Your task to perform on an android device: Open the Play Movies app and select the watchlist tab. Image 0: 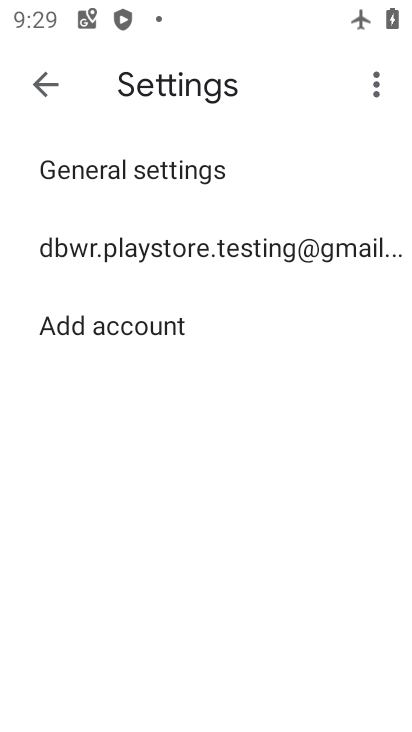
Step 0: press home button
Your task to perform on an android device: Open the Play Movies app and select the watchlist tab. Image 1: 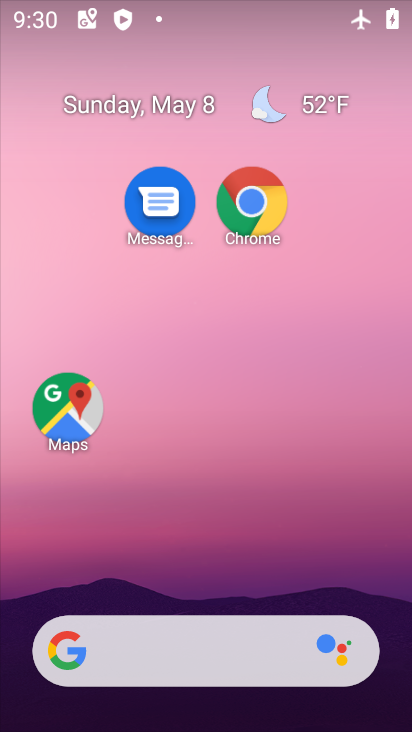
Step 1: drag from (205, 603) to (137, 7)
Your task to perform on an android device: Open the Play Movies app and select the watchlist tab. Image 2: 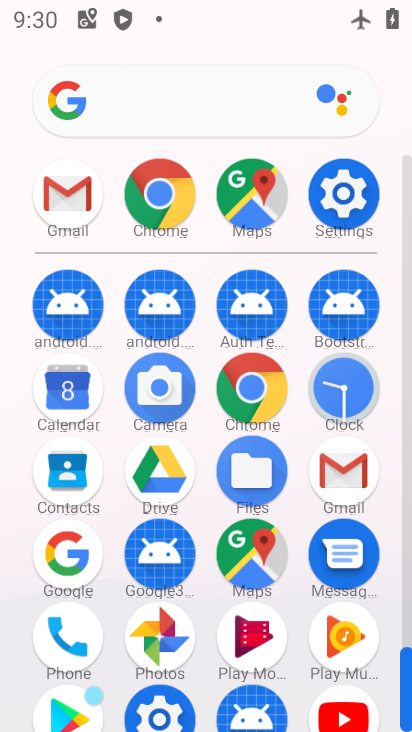
Step 2: click (252, 658)
Your task to perform on an android device: Open the Play Movies app and select the watchlist tab. Image 3: 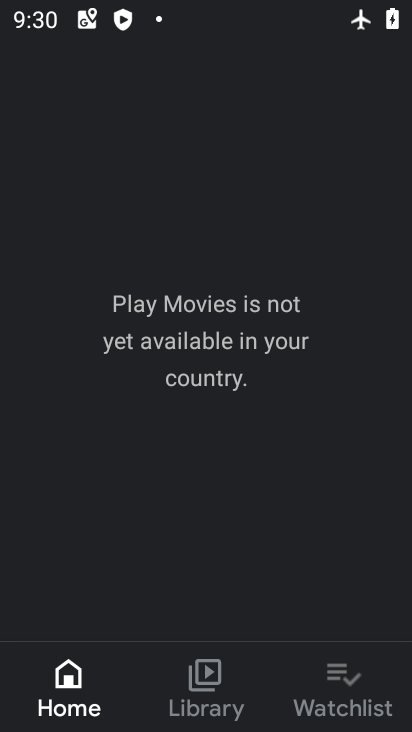
Step 3: click (326, 680)
Your task to perform on an android device: Open the Play Movies app and select the watchlist tab. Image 4: 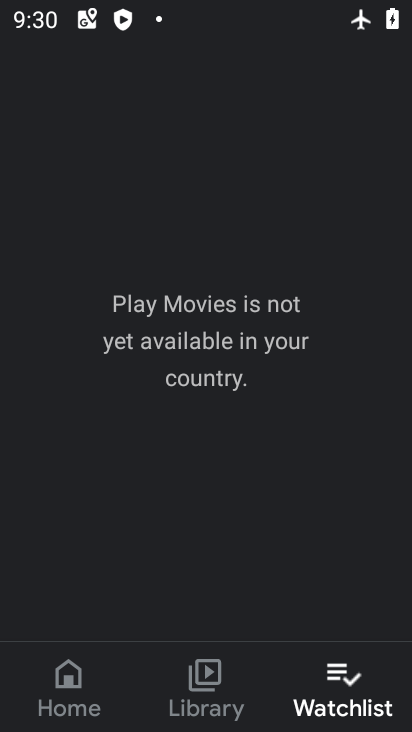
Step 4: task complete